Your task to perform on an android device: check the backup settings in the google photos Image 0: 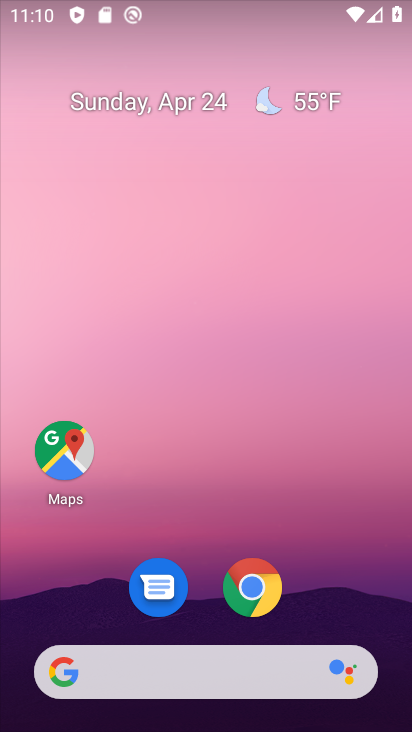
Step 0: drag from (358, 561) to (289, 18)
Your task to perform on an android device: check the backup settings in the google photos Image 1: 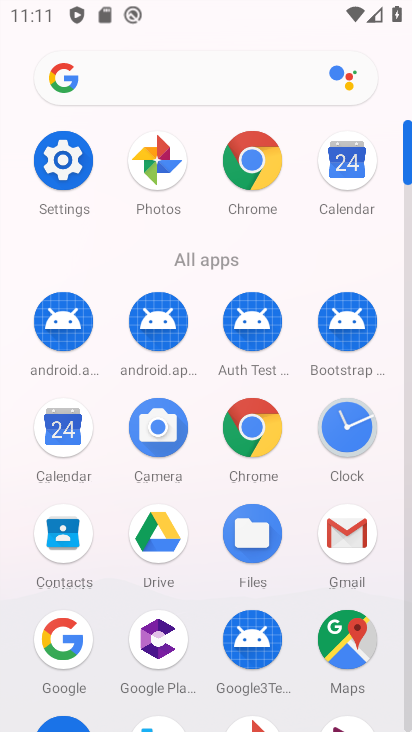
Step 1: click (146, 144)
Your task to perform on an android device: check the backup settings in the google photos Image 2: 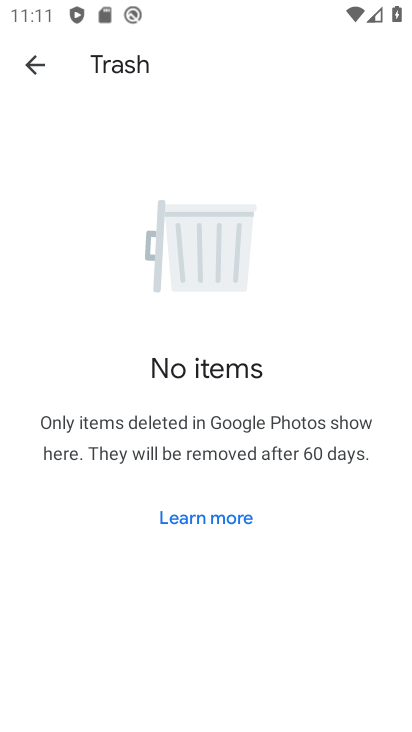
Step 2: click (45, 69)
Your task to perform on an android device: check the backup settings in the google photos Image 3: 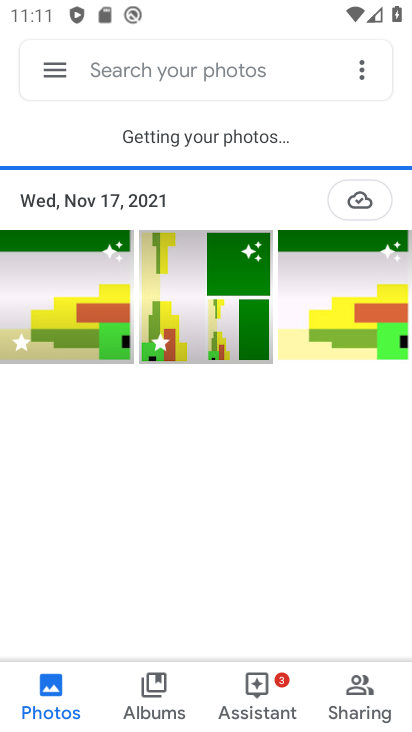
Step 3: click (53, 74)
Your task to perform on an android device: check the backup settings in the google photos Image 4: 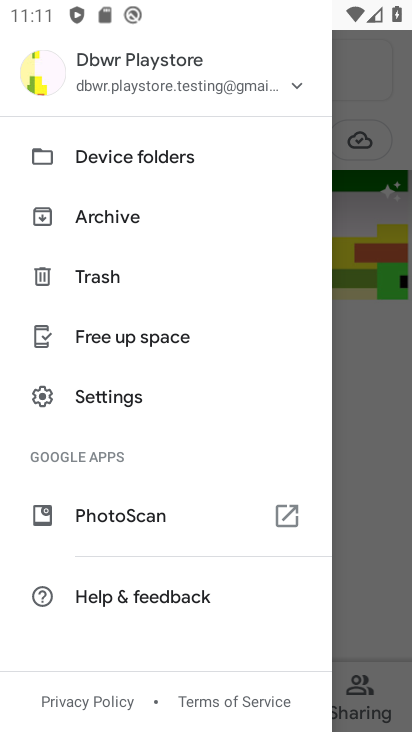
Step 4: click (80, 414)
Your task to perform on an android device: check the backup settings in the google photos Image 5: 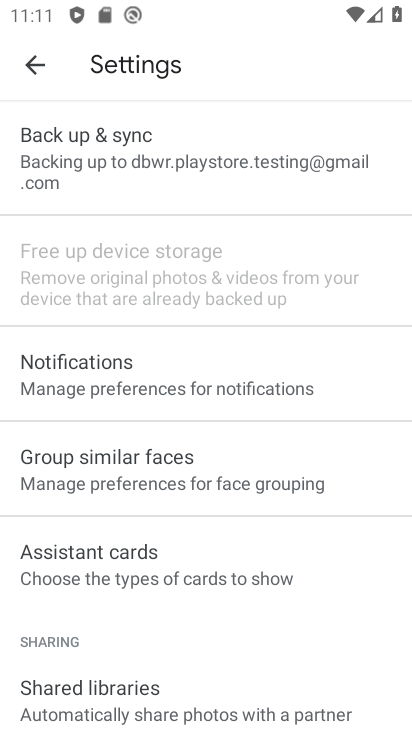
Step 5: click (139, 175)
Your task to perform on an android device: check the backup settings in the google photos Image 6: 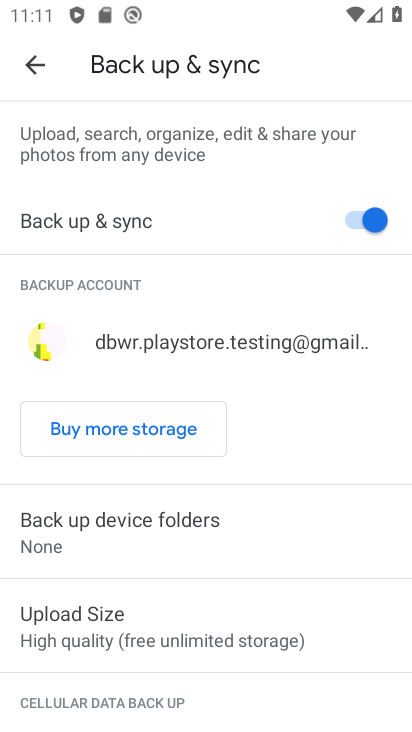
Step 6: task complete